Your task to perform on an android device: Open my contact list Image 0: 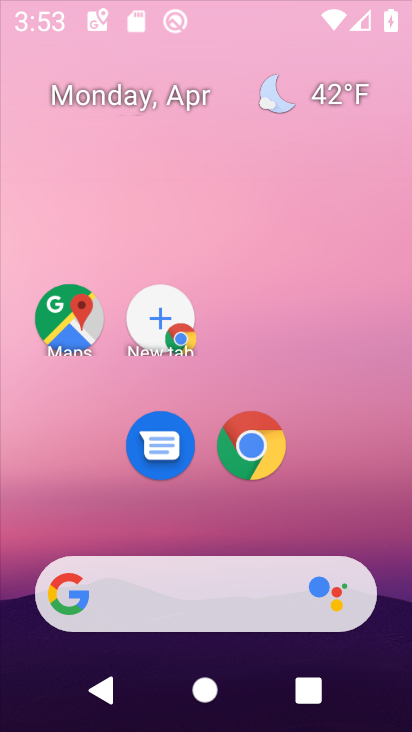
Step 0: click (238, 57)
Your task to perform on an android device: Open my contact list Image 1: 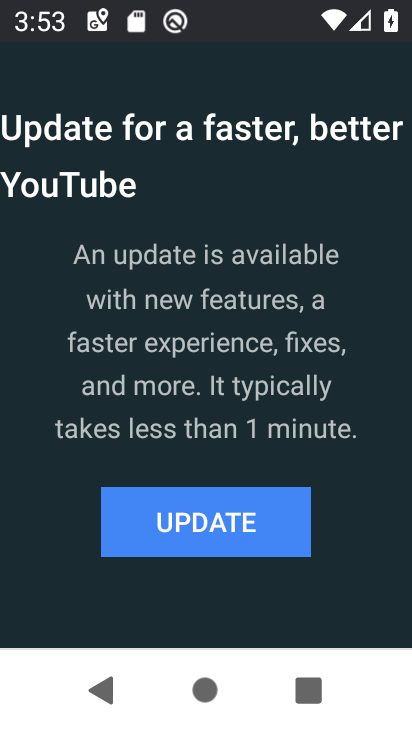
Step 1: press home button
Your task to perform on an android device: Open my contact list Image 2: 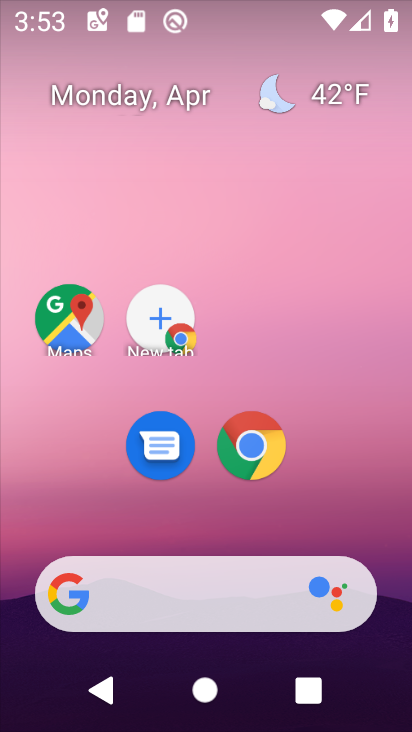
Step 2: drag from (203, 517) to (212, 18)
Your task to perform on an android device: Open my contact list Image 3: 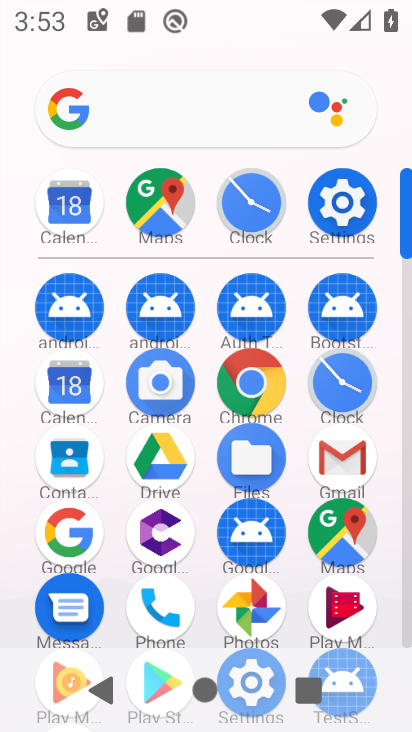
Step 3: click (67, 452)
Your task to perform on an android device: Open my contact list Image 4: 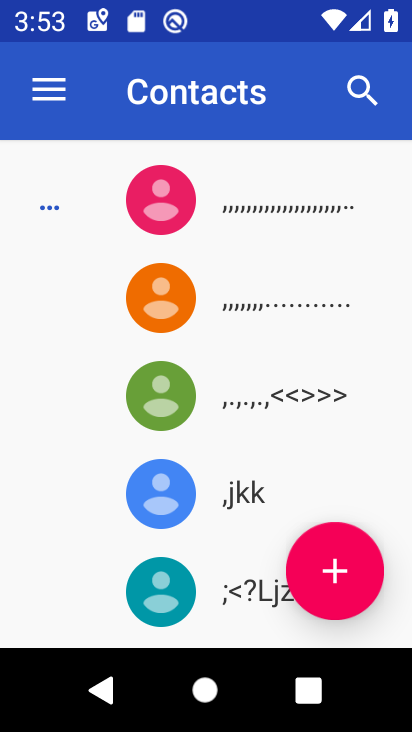
Step 4: task complete